Your task to perform on an android device: open sync settings in chrome Image 0: 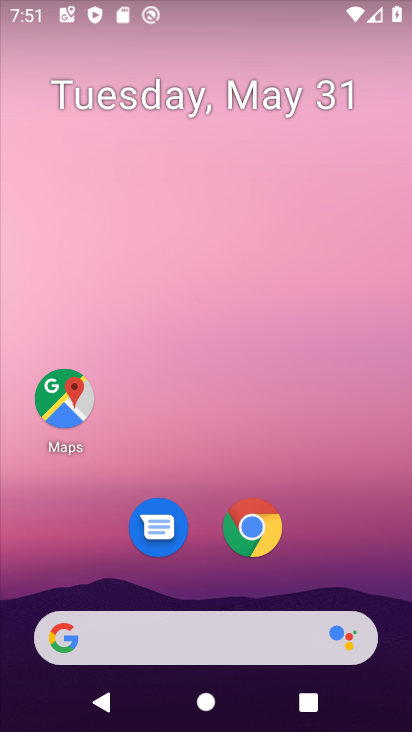
Step 0: click (256, 524)
Your task to perform on an android device: open sync settings in chrome Image 1: 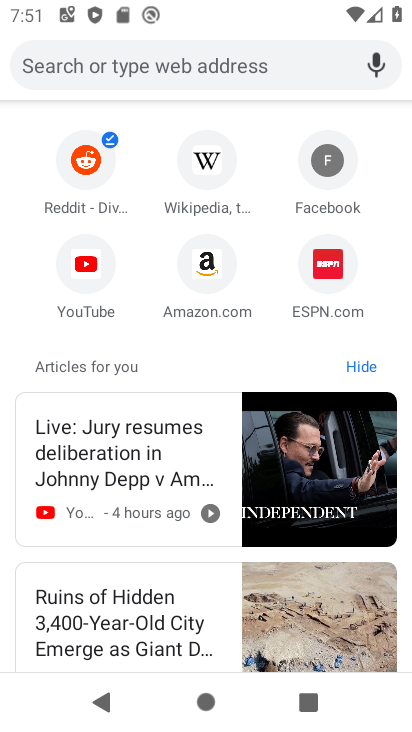
Step 1: drag from (267, 154) to (257, 615)
Your task to perform on an android device: open sync settings in chrome Image 2: 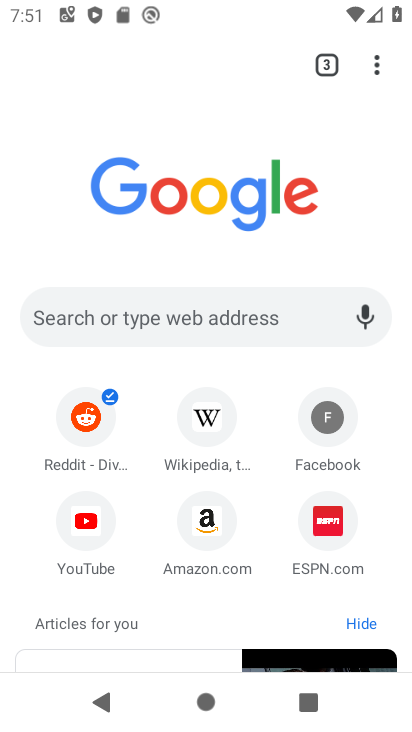
Step 2: click (377, 61)
Your task to perform on an android device: open sync settings in chrome Image 3: 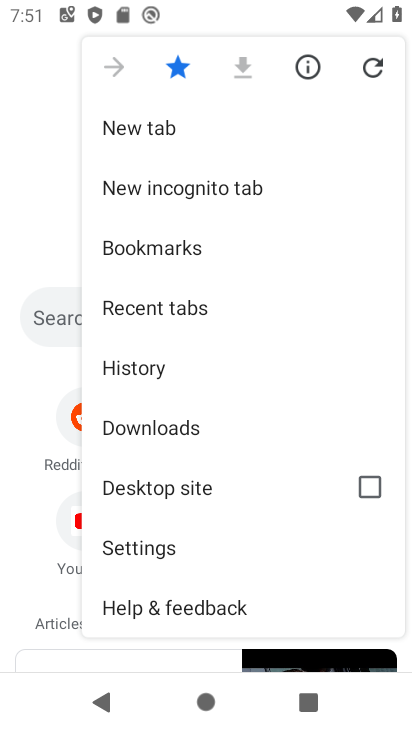
Step 3: click (143, 544)
Your task to perform on an android device: open sync settings in chrome Image 4: 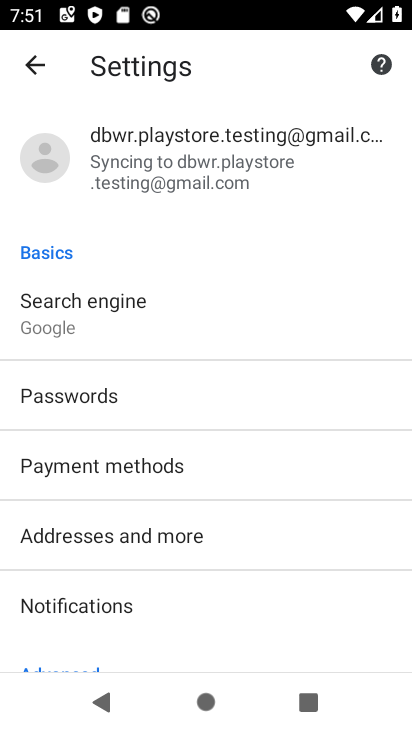
Step 4: click (175, 172)
Your task to perform on an android device: open sync settings in chrome Image 5: 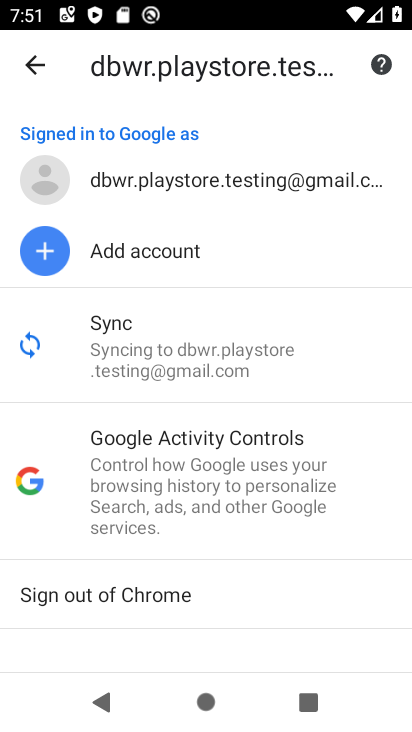
Step 5: click (130, 334)
Your task to perform on an android device: open sync settings in chrome Image 6: 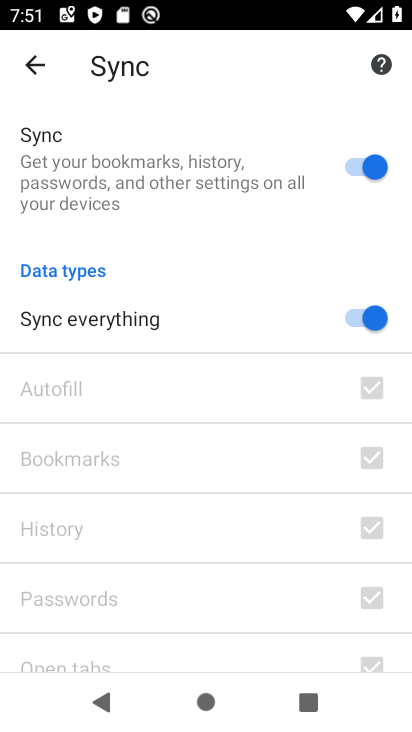
Step 6: task complete